Your task to perform on an android device: Go to Wikipedia Image 0: 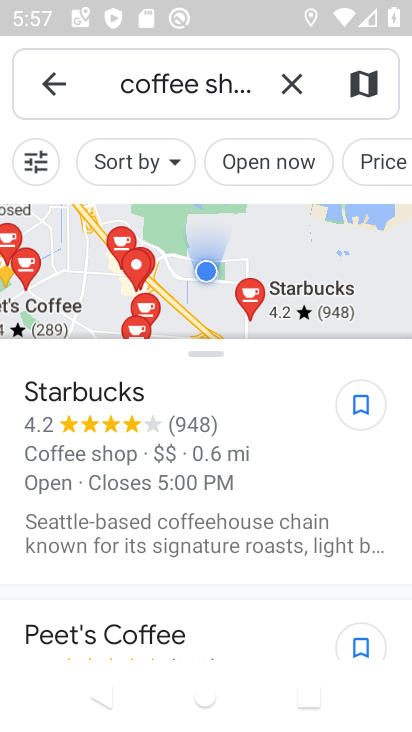
Step 0: press home button
Your task to perform on an android device: Go to Wikipedia Image 1: 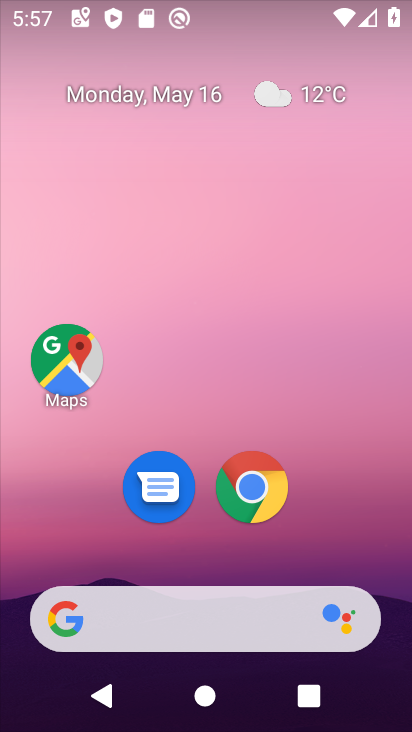
Step 1: click (267, 481)
Your task to perform on an android device: Go to Wikipedia Image 2: 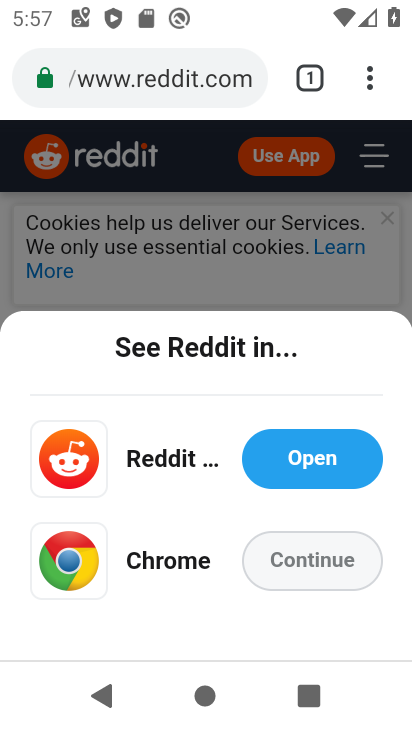
Step 2: click (239, 86)
Your task to perform on an android device: Go to Wikipedia Image 3: 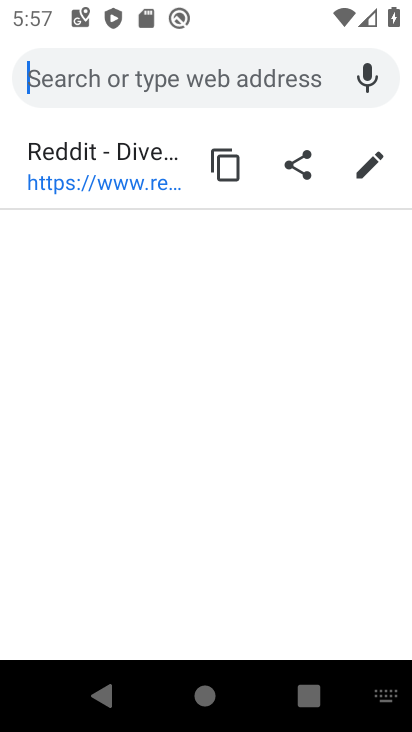
Step 3: type "wikipedia"
Your task to perform on an android device: Go to Wikipedia Image 4: 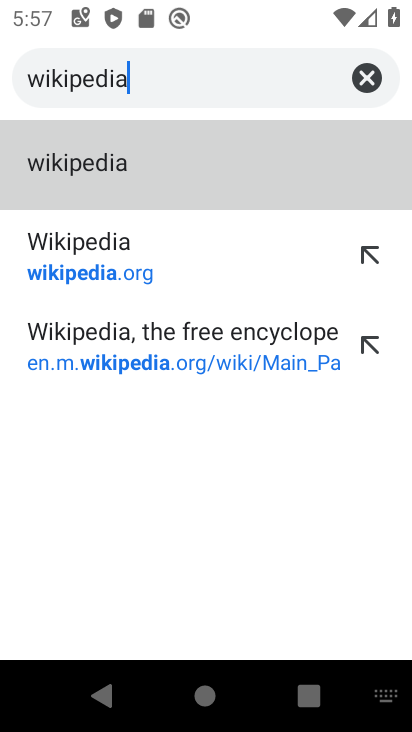
Step 4: click (57, 273)
Your task to perform on an android device: Go to Wikipedia Image 5: 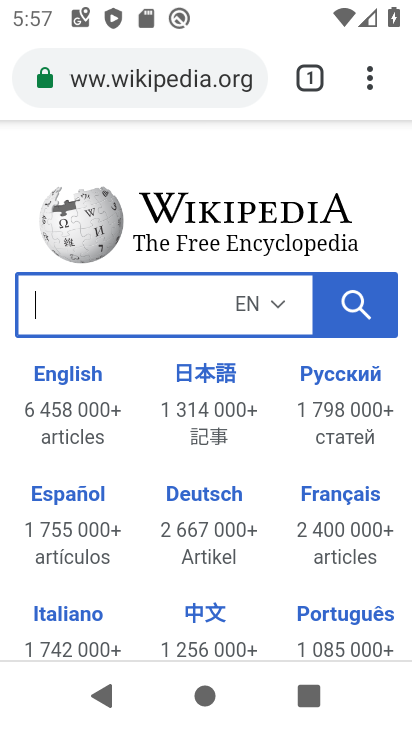
Step 5: task complete